Your task to perform on an android device: Open Google Chrome and click the shortcut for Amazon.com Image 0: 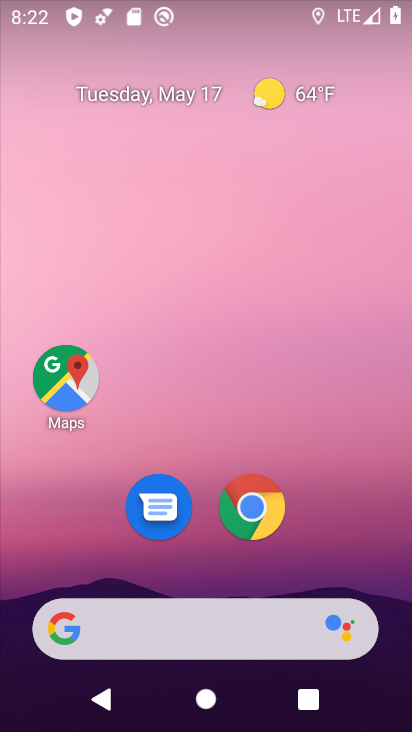
Step 0: click (254, 507)
Your task to perform on an android device: Open Google Chrome and click the shortcut for Amazon.com Image 1: 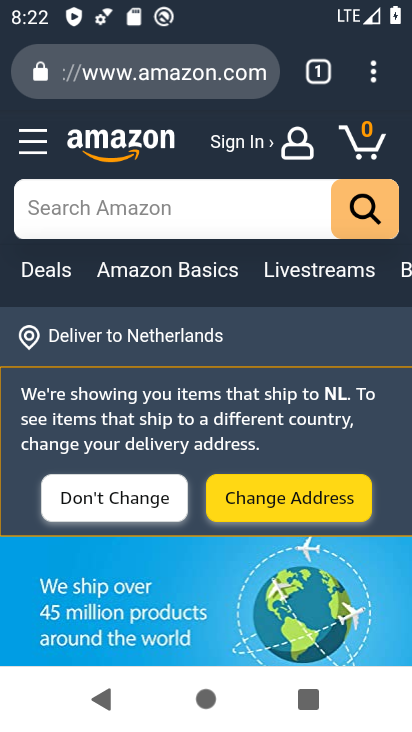
Step 1: click (376, 72)
Your task to perform on an android device: Open Google Chrome and click the shortcut for Amazon.com Image 2: 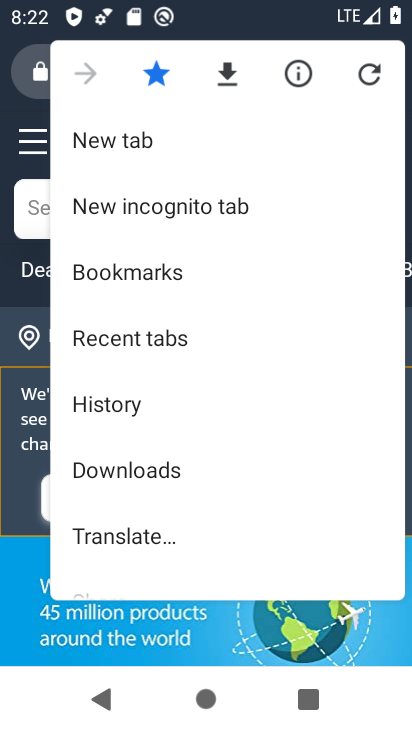
Step 2: drag from (189, 500) to (284, 381)
Your task to perform on an android device: Open Google Chrome and click the shortcut for Amazon.com Image 3: 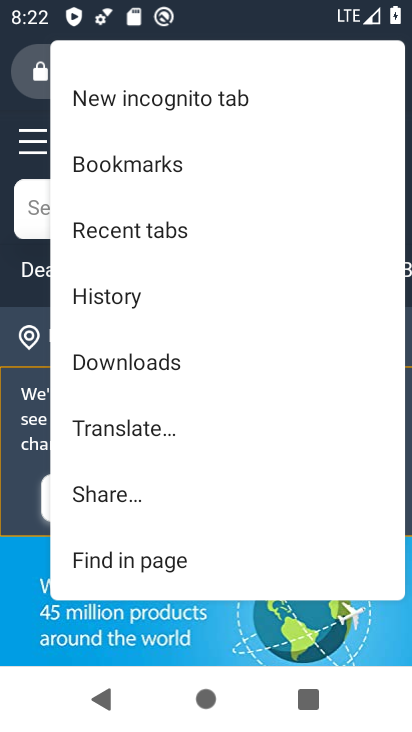
Step 3: drag from (210, 528) to (298, 421)
Your task to perform on an android device: Open Google Chrome and click the shortcut for Amazon.com Image 4: 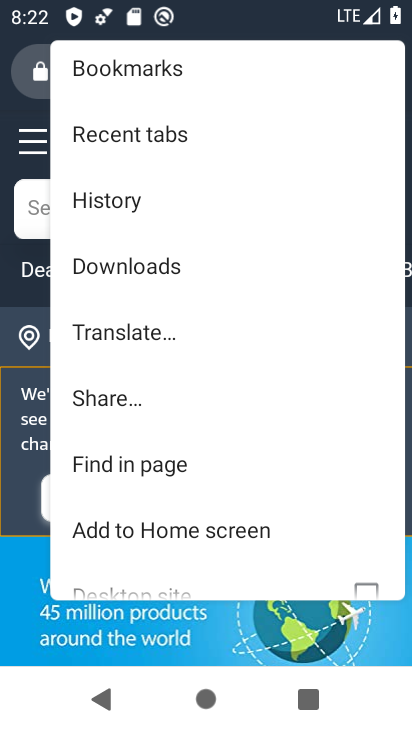
Step 4: click (180, 535)
Your task to perform on an android device: Open Google Chrome and click the shortcut for Amazon.com Image 5: 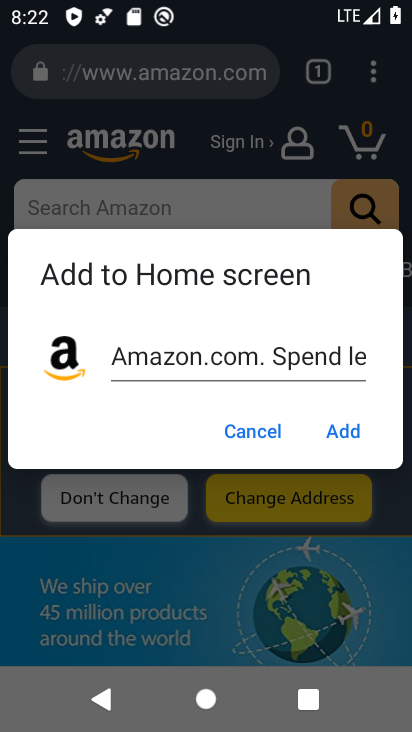
Step 5: click (354, 420)
Your task to perform on an android device: Open Google Chrome and click the shortcut for Amazon.com Image 6: 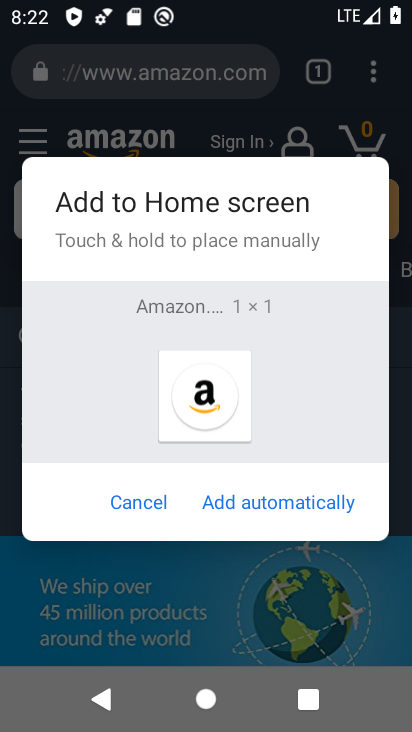
Step 6: click (282, 498)
Your task to perform on an android device: Open Google Chrome and click the shortcut for Amazon.com Image 7: 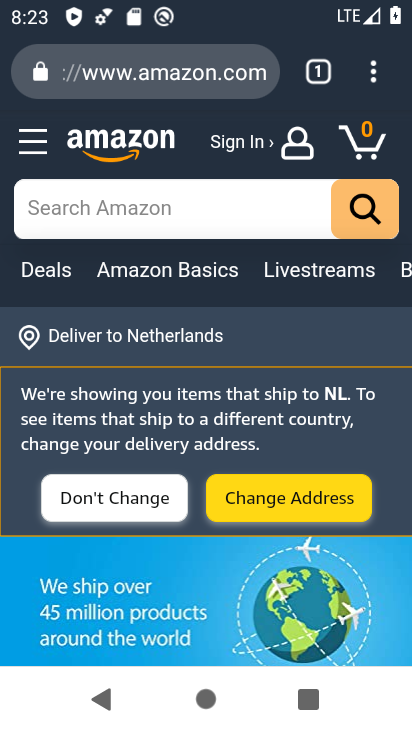
Step 7: task complete